Your task to perform on an android device: What's on the menu at In-N-Out? Image 0: 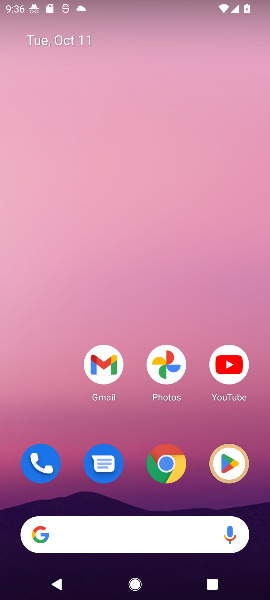
Step 0: drag from (144, 468) to (144, 232)
Your task to perform on an android device: What's on the menu at In-N-Out? Image 1: 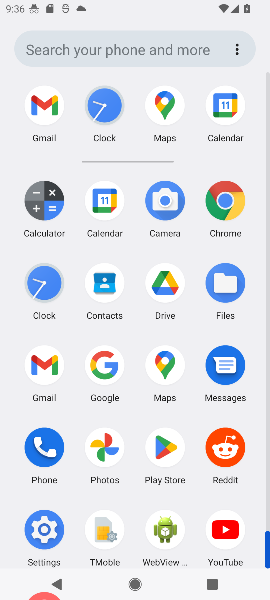
Step 1: click (97, 365)
Your task to perform on an android device: What's on the menu at In-N-Out? Image 2: 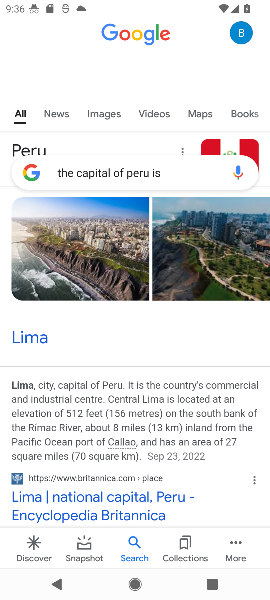
Step 2: click (118, 172)
Your task to perform on an android device: What's on the menu at In-N-Out? Image 3: 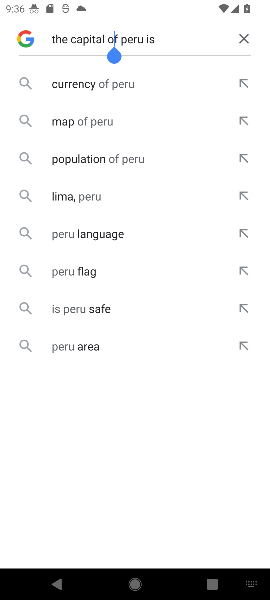
Step 3: click (243, 40)
Your task to perform on an android device: What's on the menu at In-N-Out? Image 4: 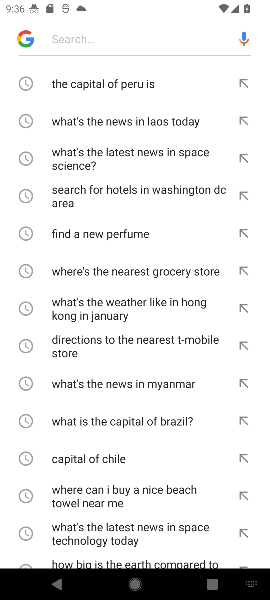
Step 4: click (114, 39)
Your task to perform on an android device: What's on the menu at In-N-Out? Image 5: 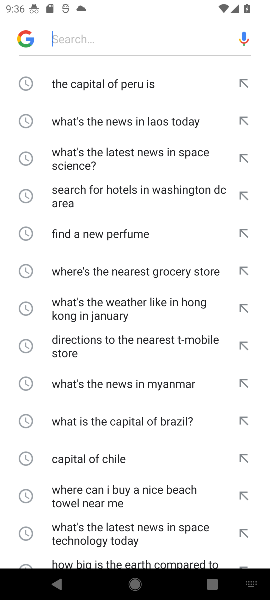
Step 5: type "What's on the menu at In-N-Out? "
Your task to perform on an android device: What's on the menu at In-N-Out? Image 6: 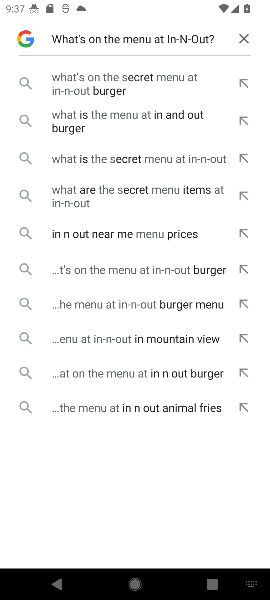
Step 6: click (143, 161)
Your task to perform on an android device: What's on the menu at In-N-Out? Image 7: 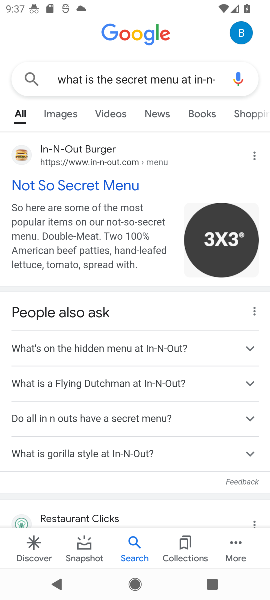
Step 7: click (89, 184)
Your task to perform on an android device: What's on the menu at In-N-Out? Image 8: 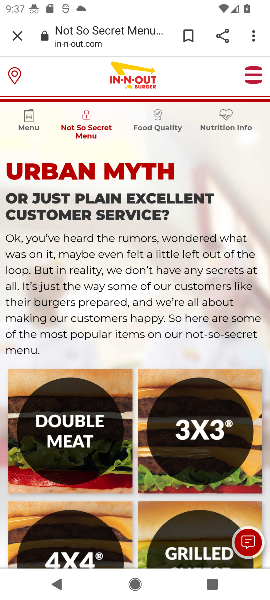
Step 8: task complete